Your task to perform on an android device: Open location settings Image 0: 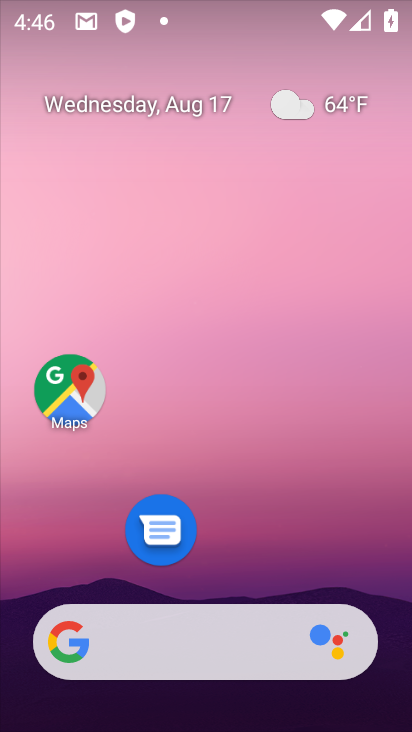
Step 0: drag from (200, 573) to (200, 22)
Your task to perform on an android device: Open location settings Image 1: 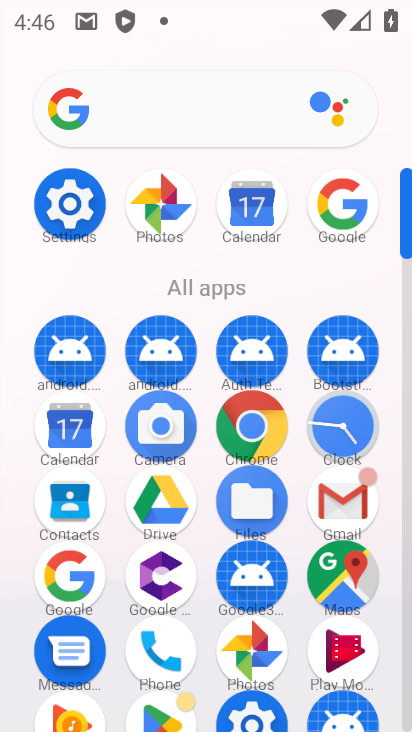
Step 1: click (75, 198)
Your task to perform on an android device: Open location settings Image 2: 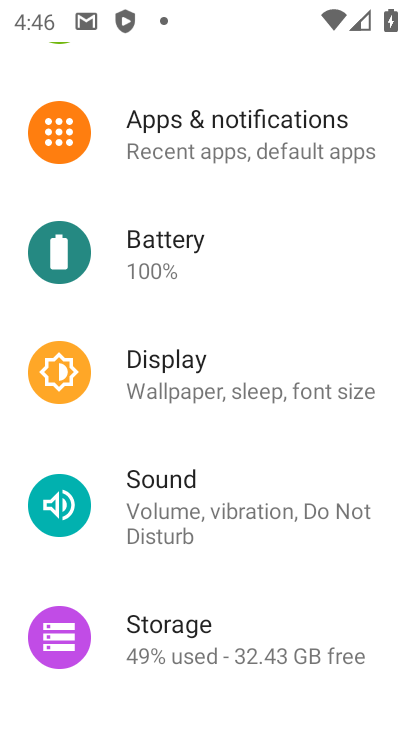
Step 2: drag from (214, 410) to (222, 252)
Your task to perform on an android device: Open location settings Image 3: 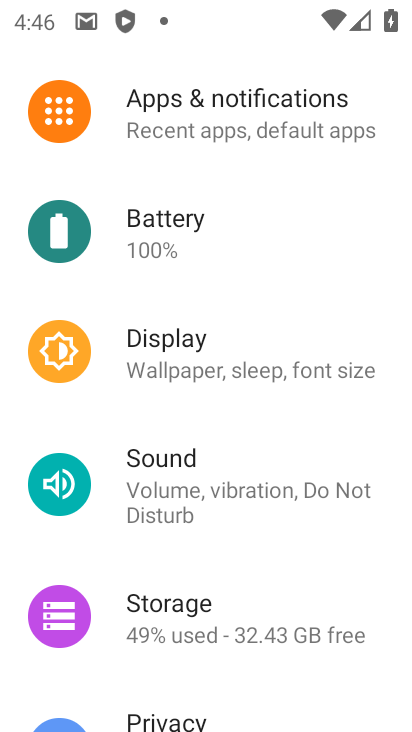
Step 3: drag from (191, 661) to (231, 259)
Your task to perform on an android device: Open location settings Image 4: 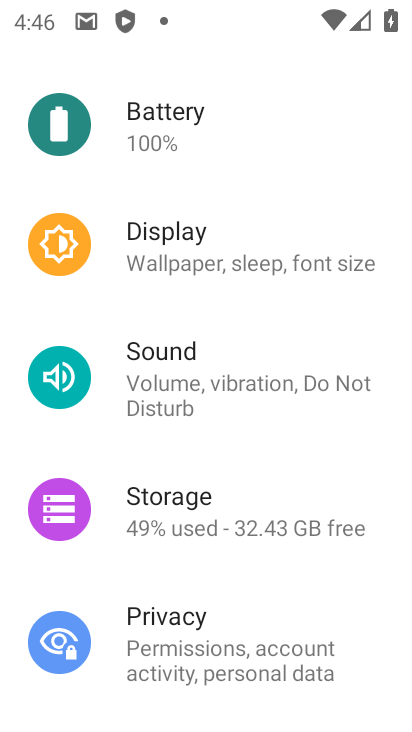
Step 4: drag from (221, 557) to (243, 165)
Your task to perform on an android device: Open location settings Image 5: 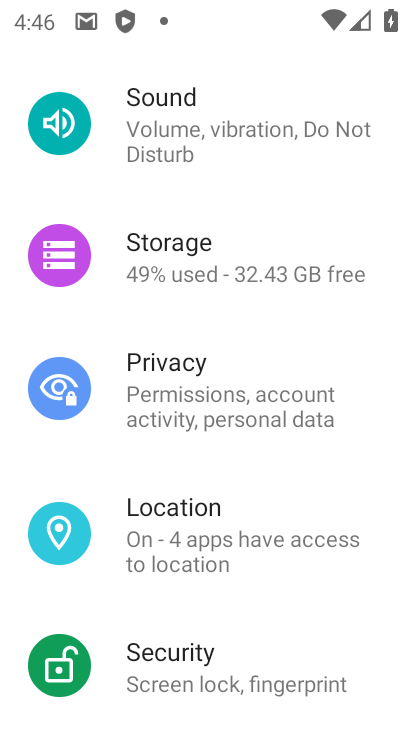
Step 5: click (165, 528)
Your task to perform on an android device: Open location settings Image 6: 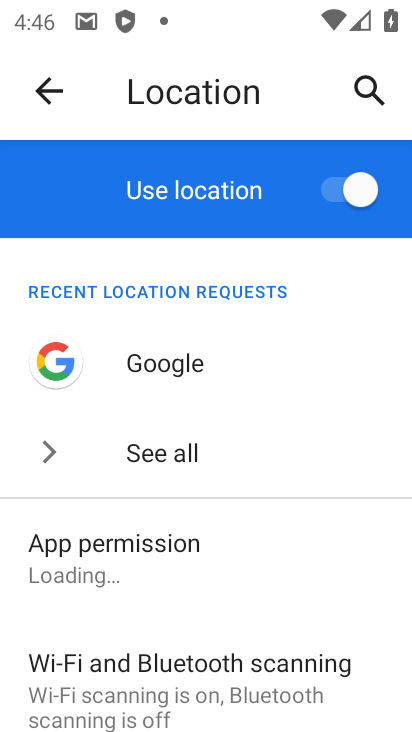
Step 6: task complete